Your task to perform on an android device: check out phone information Image 0: 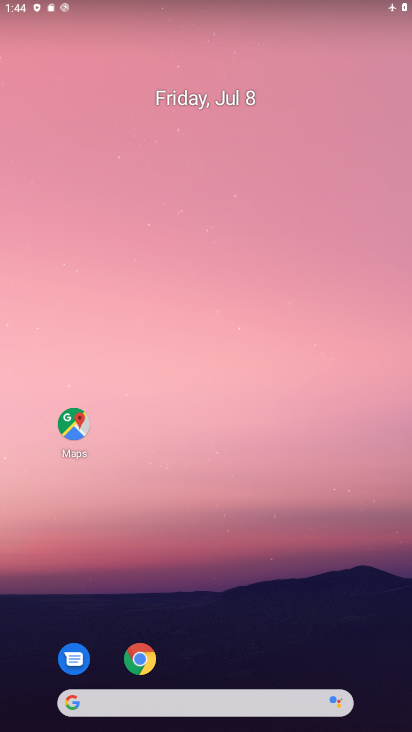
Step 0: drag from (219, 498) to (278, 1)
Your task to perform on an android device: check out phone information Image 1: 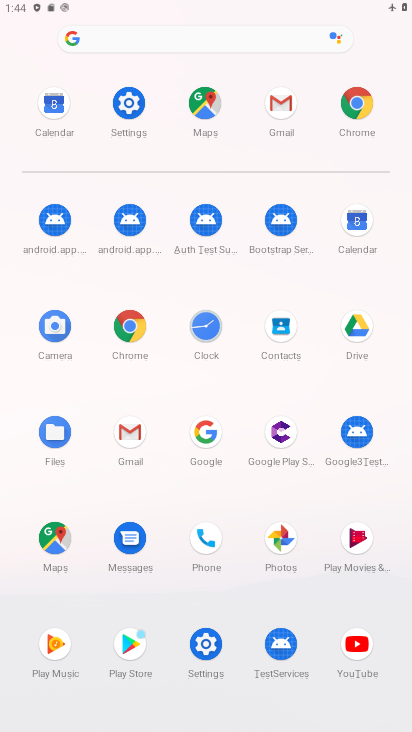
Step 1: click (215, 634)
Your task to perform on an android device: check out phone information Image 2: 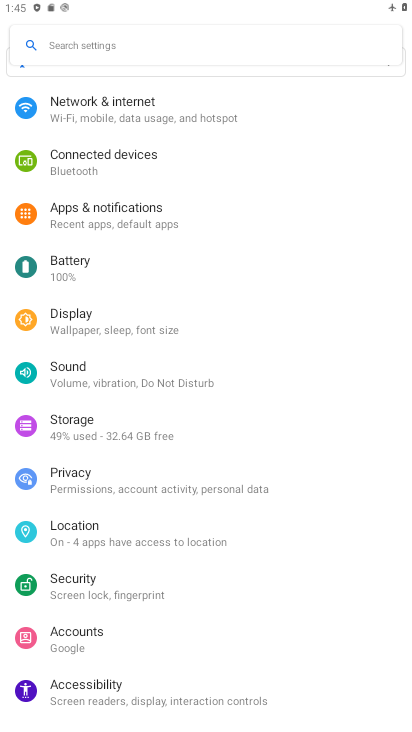
Step 2: drag from (257, 669) to (279, 120)
Your task to perform on an android device: check out phone information Image 3: 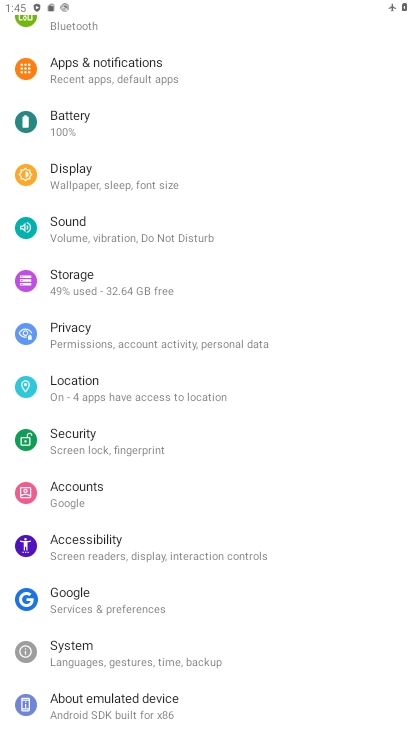
Step 3: click (171, 702)
Your task to perform on an android device: check out phone information Image 4: 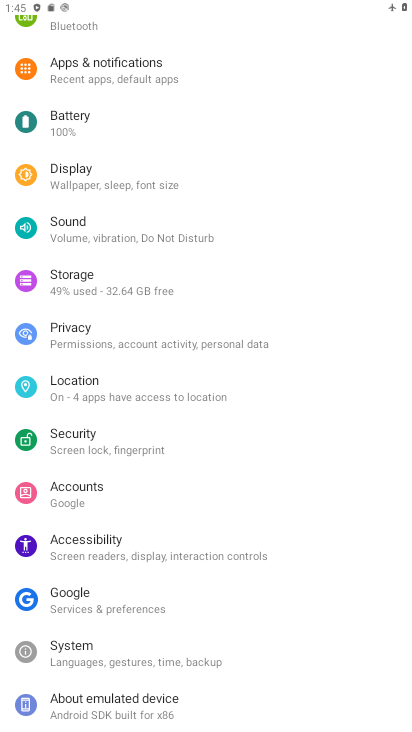
Step 4: click (182, 716)
Your task to perform on an android device: check out phone information Image 5: 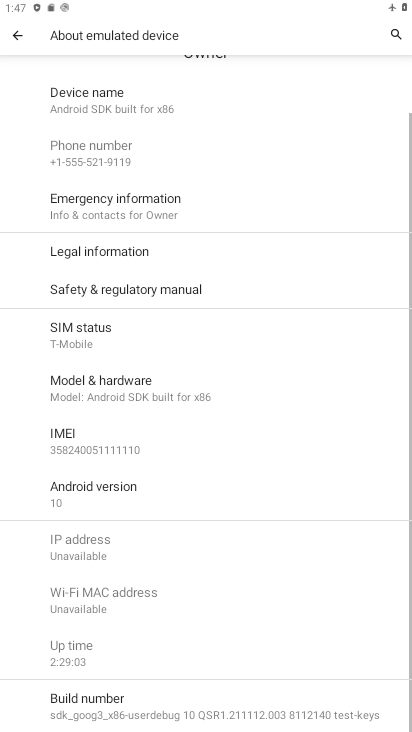
Step 5: task complete